Your task to perform on an android device: Open Google Chrome and open the bookmarks view Image 0: 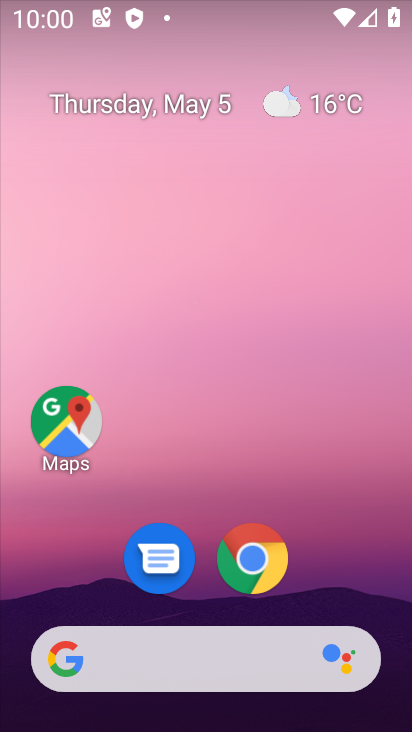
Step 0: click (269, 570)
Your task to perform on an android device: Open Google Chrome and open the bookmarks view Image 1: 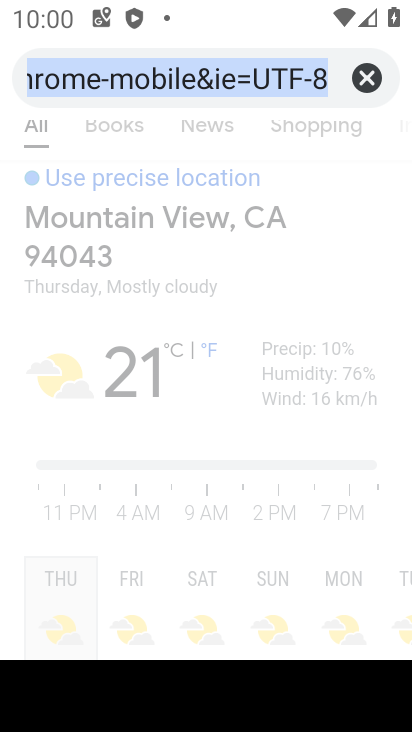
Step 1: press back button
Your task to perform on an android device: Open Google Chrome and open the bookmarks view Image 2: 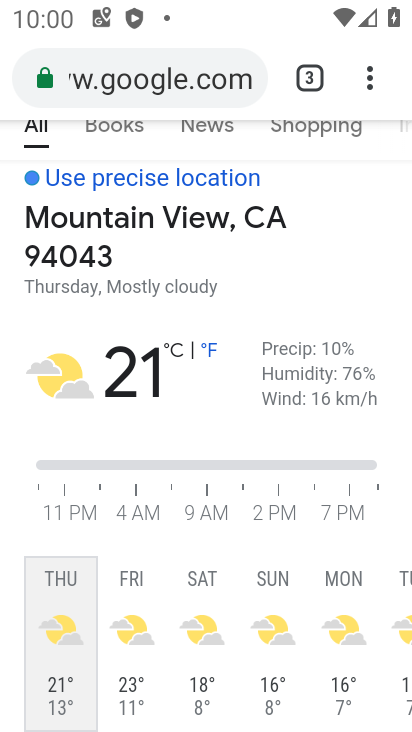
Step 2: drag from (369, 91) to (235, 297)
Your task to perform on an android device: Open Google Chrome and open the bookmarks view Image 3: 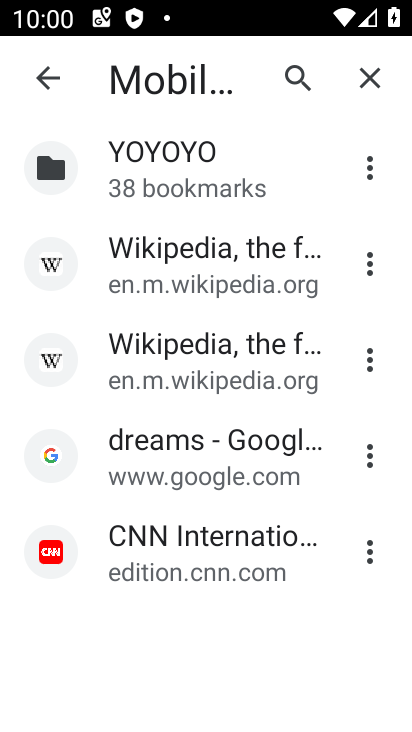
Step 3: click (227, 274)
Your task to perform on an android device: Open Google Chrome and open the bookmarks view Image 4: 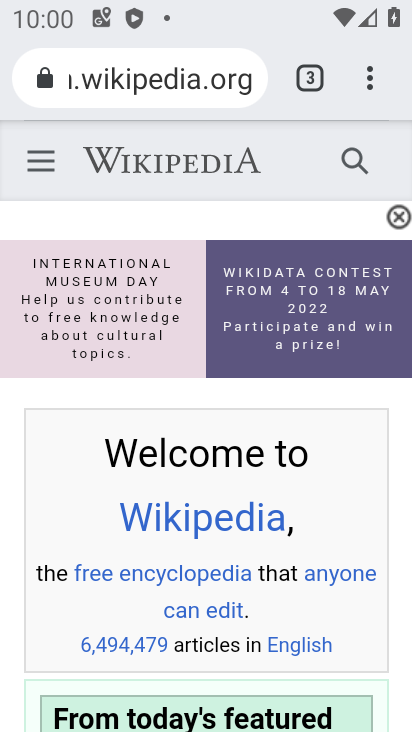
Step 4: task complete